Your task to perform on an android device: Go to Wikipedia Image 0: 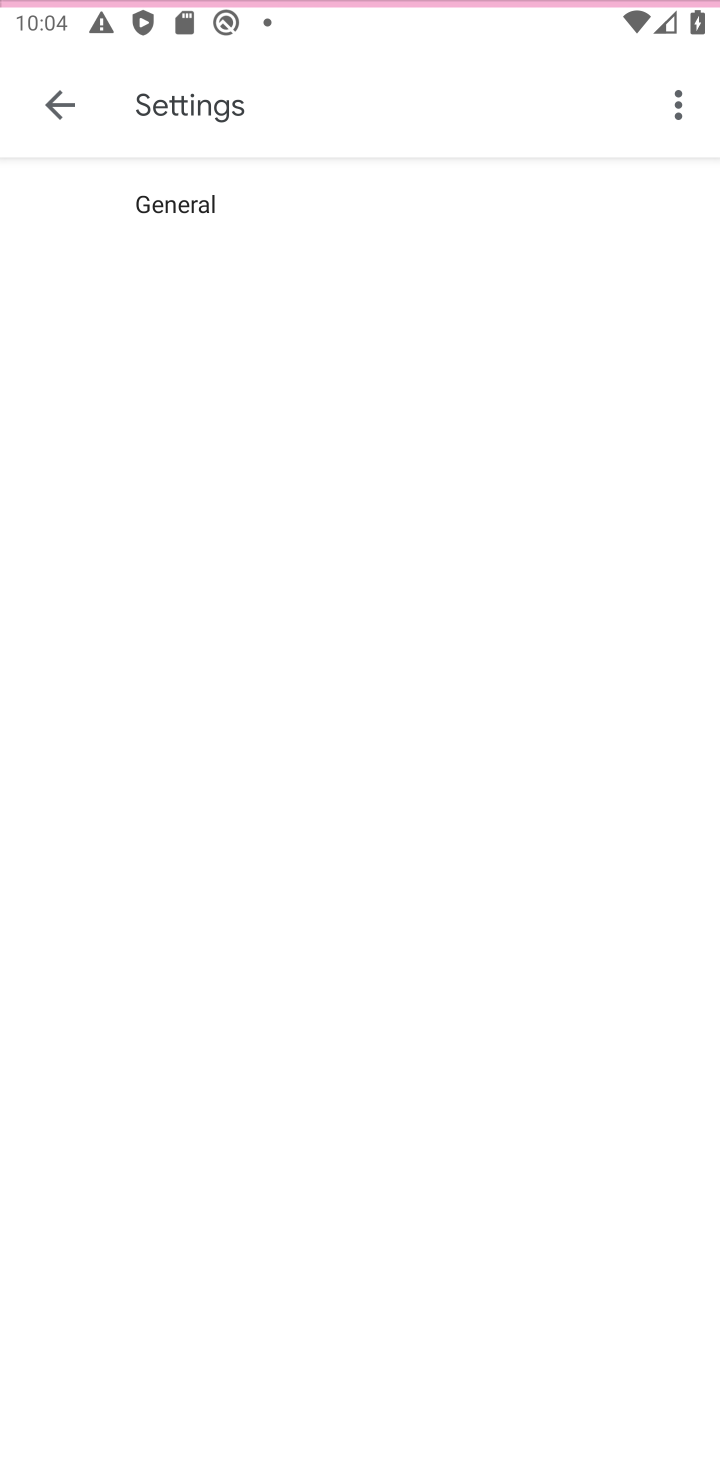
Step 0: press home button
Your task to perform on an android device: Go to Wikipedia Image 1: 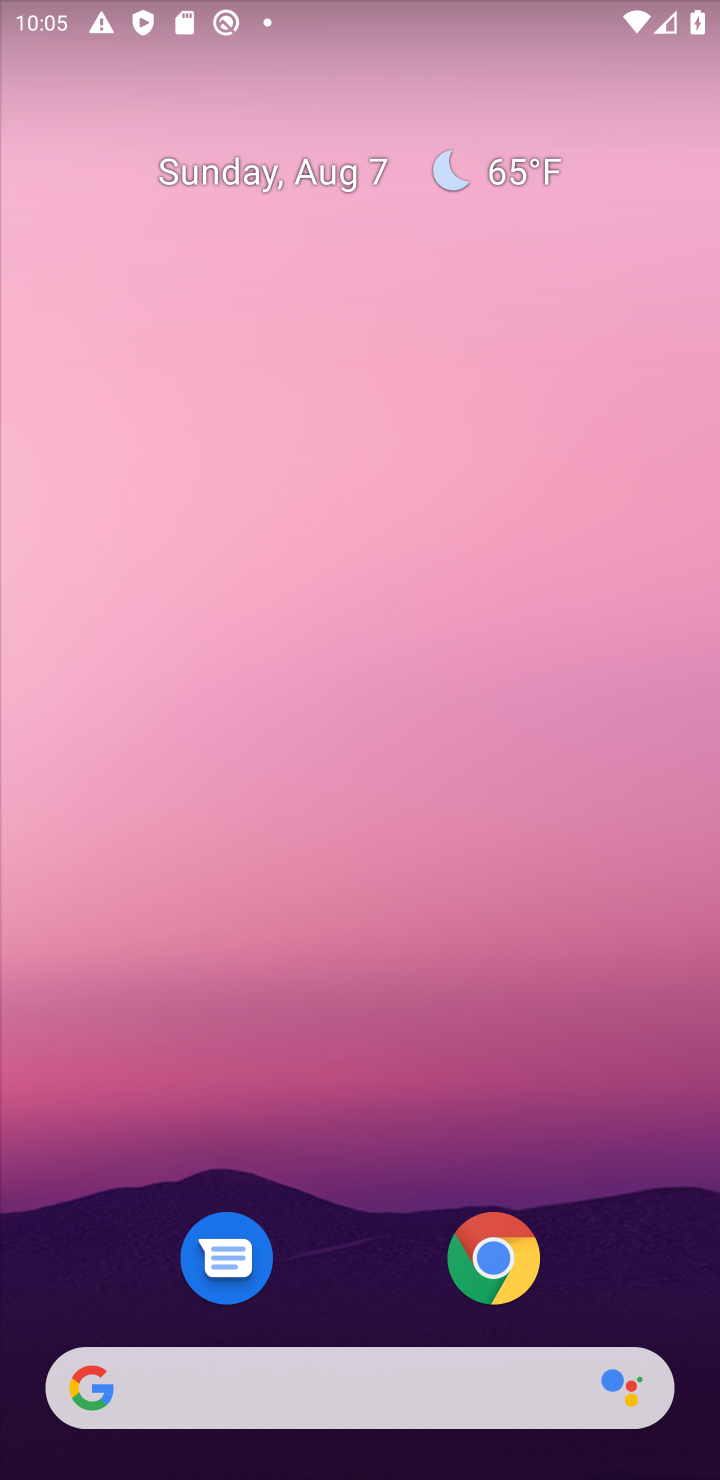
Step 1: drag from (302, 762) to (269, 68)
Your task to perform on an android device: Go to Wikipedia Image 2: 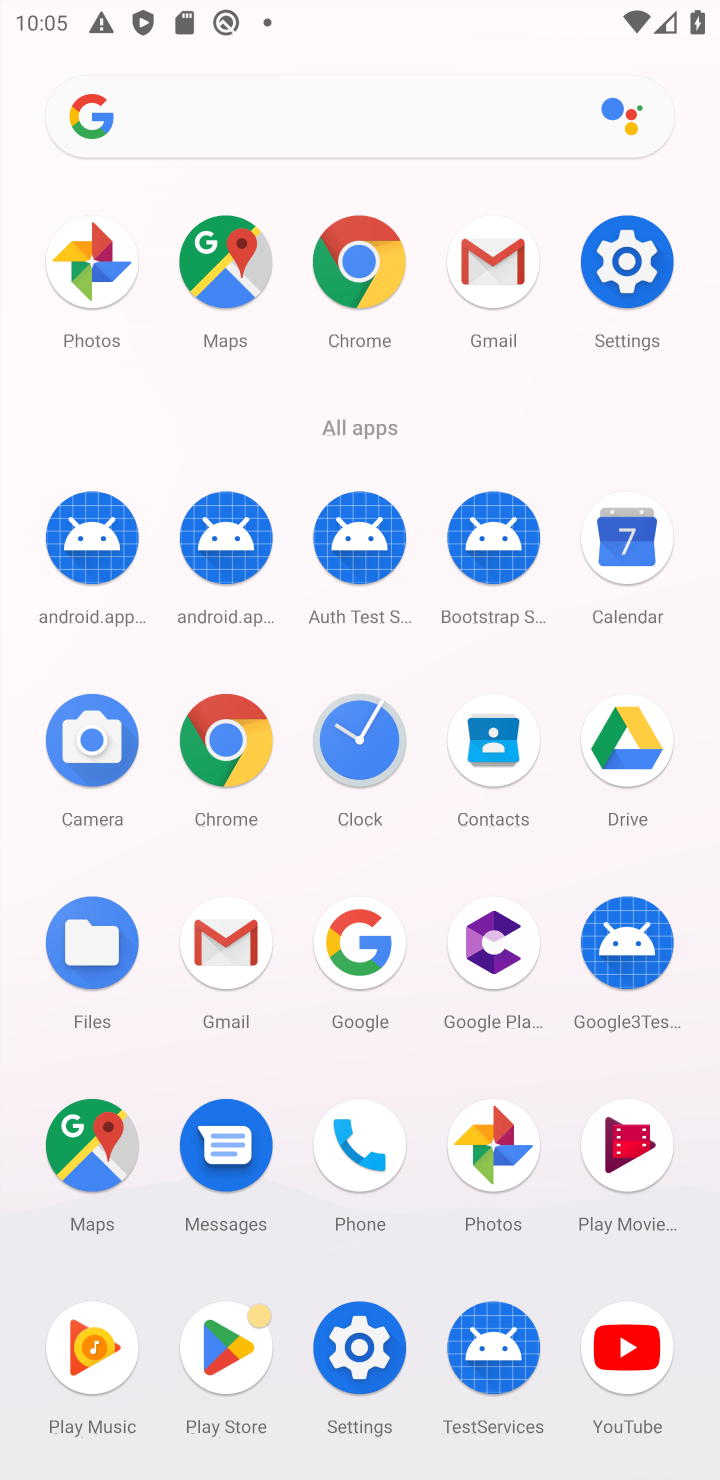
Step 2: click (348, 266)
Your task to perform on an android device: Go to Wikipedia Image 3: 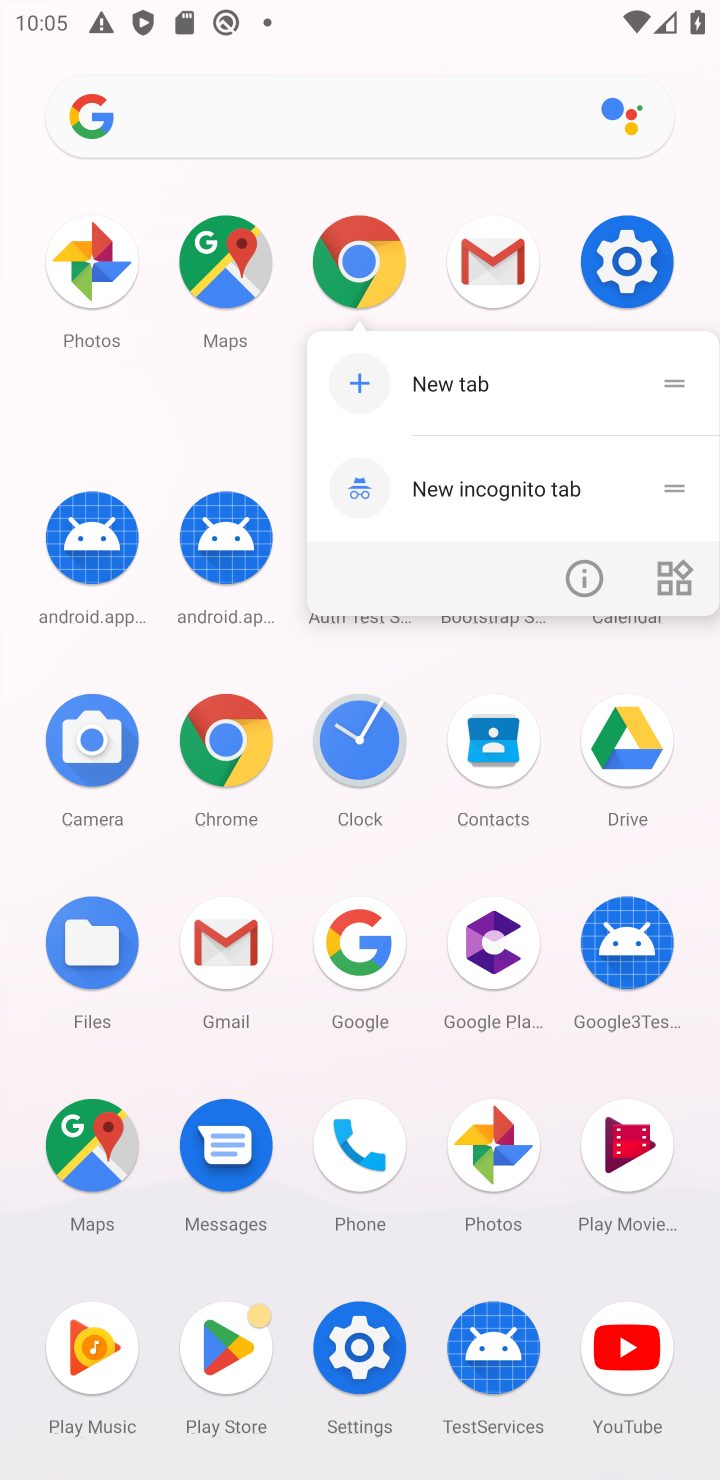
Step 3: click (602, 775)
Your task to perform on an android device: Go to Wikipedia Image 4: 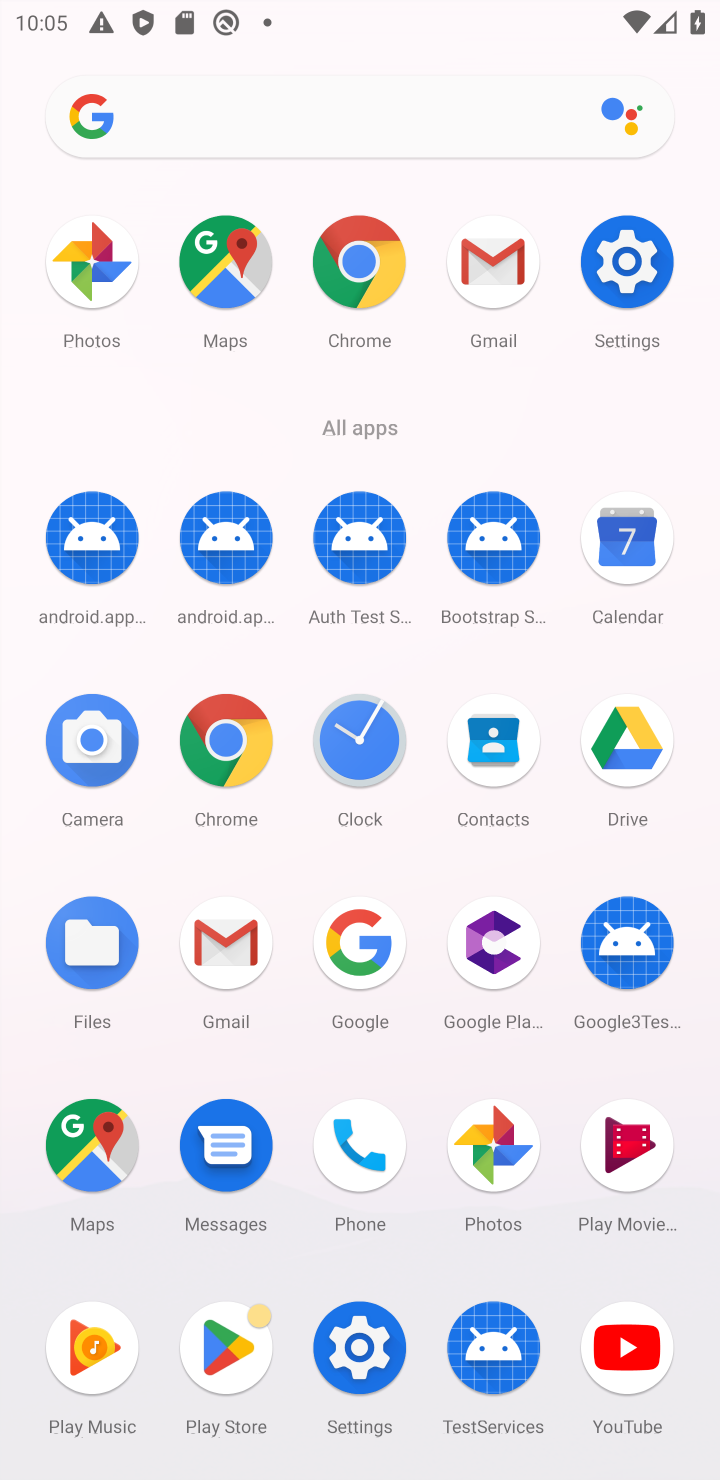
Step 4: click (345, 262)
Your task to perform on an android device: Go to Wikipedia Image 5: 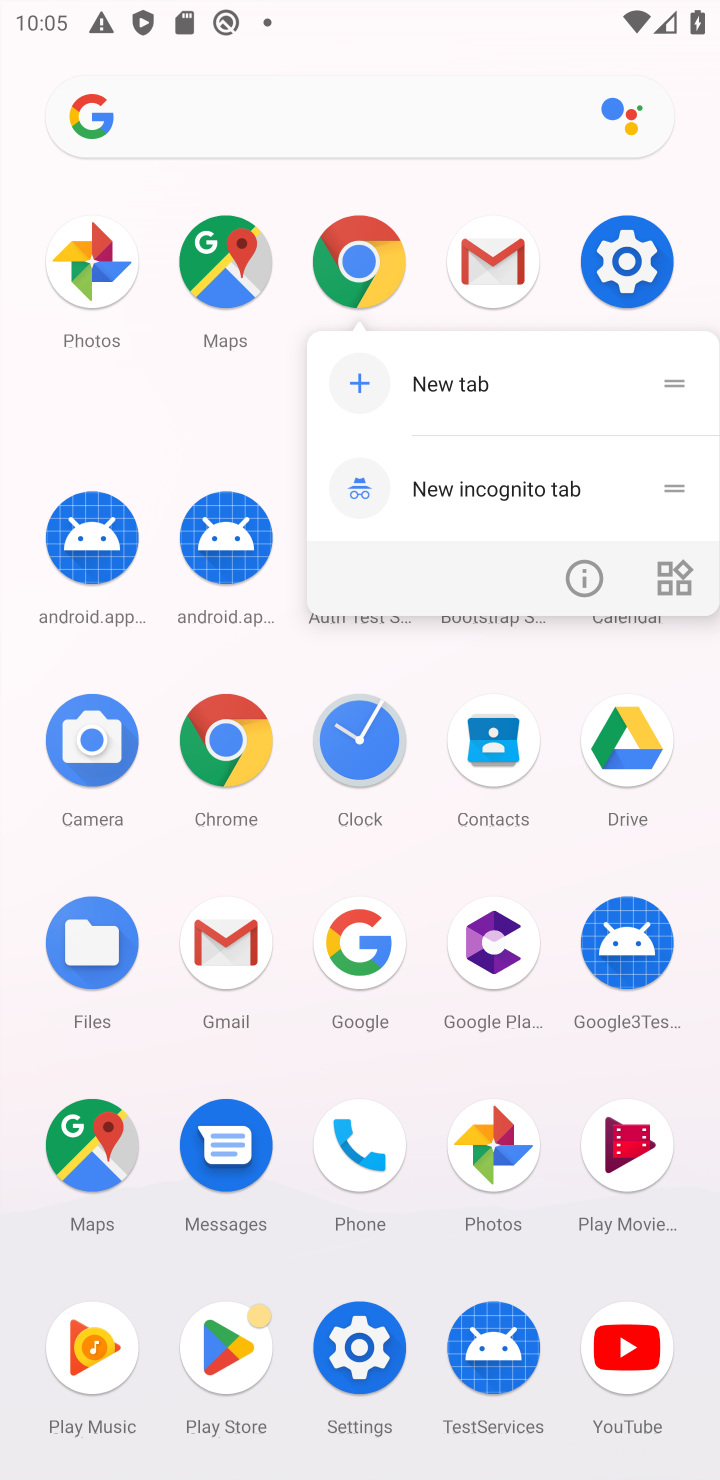
Step 5: click (365, 262)
Your task to perform on an android device: Go to Wikipedia Image 6: 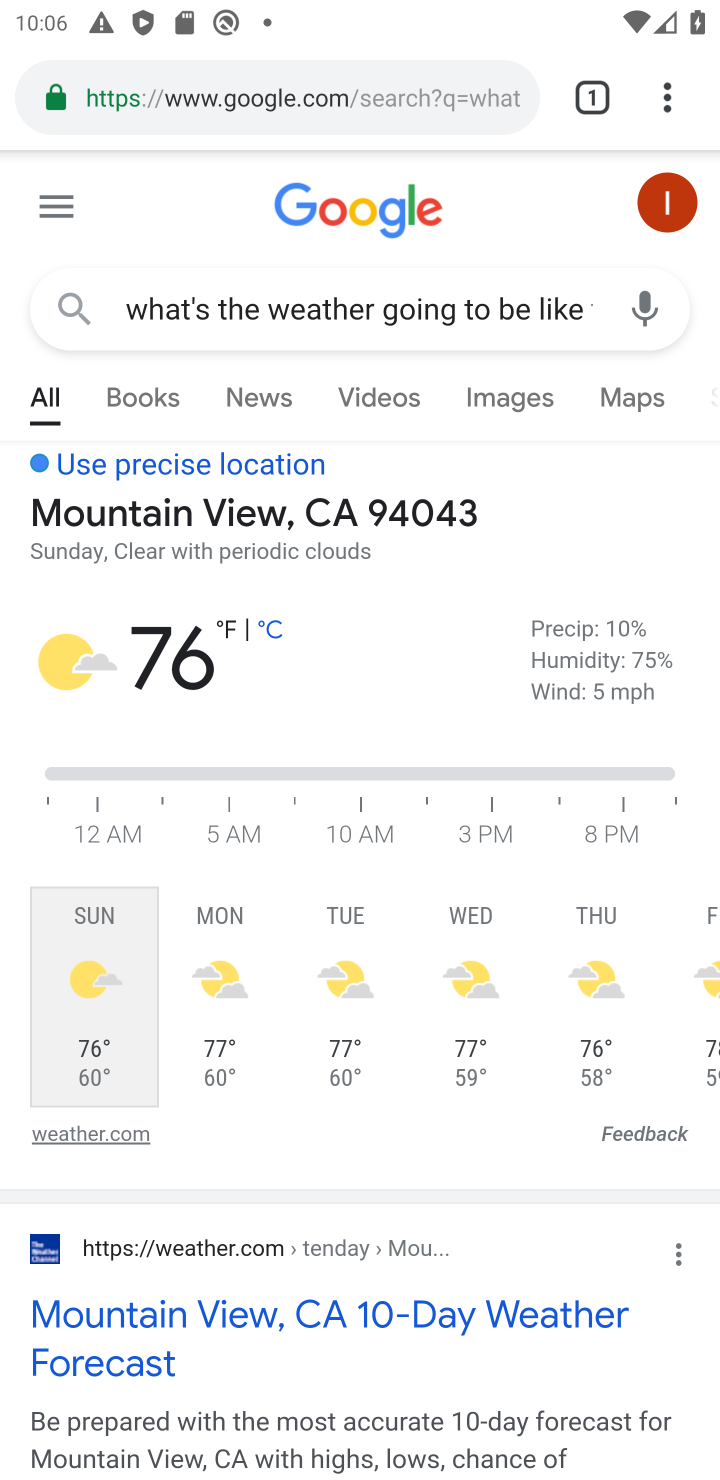
Step 6: click (327, 90)
Your task to perform on an android device: Go to Wikipedia Image 7: 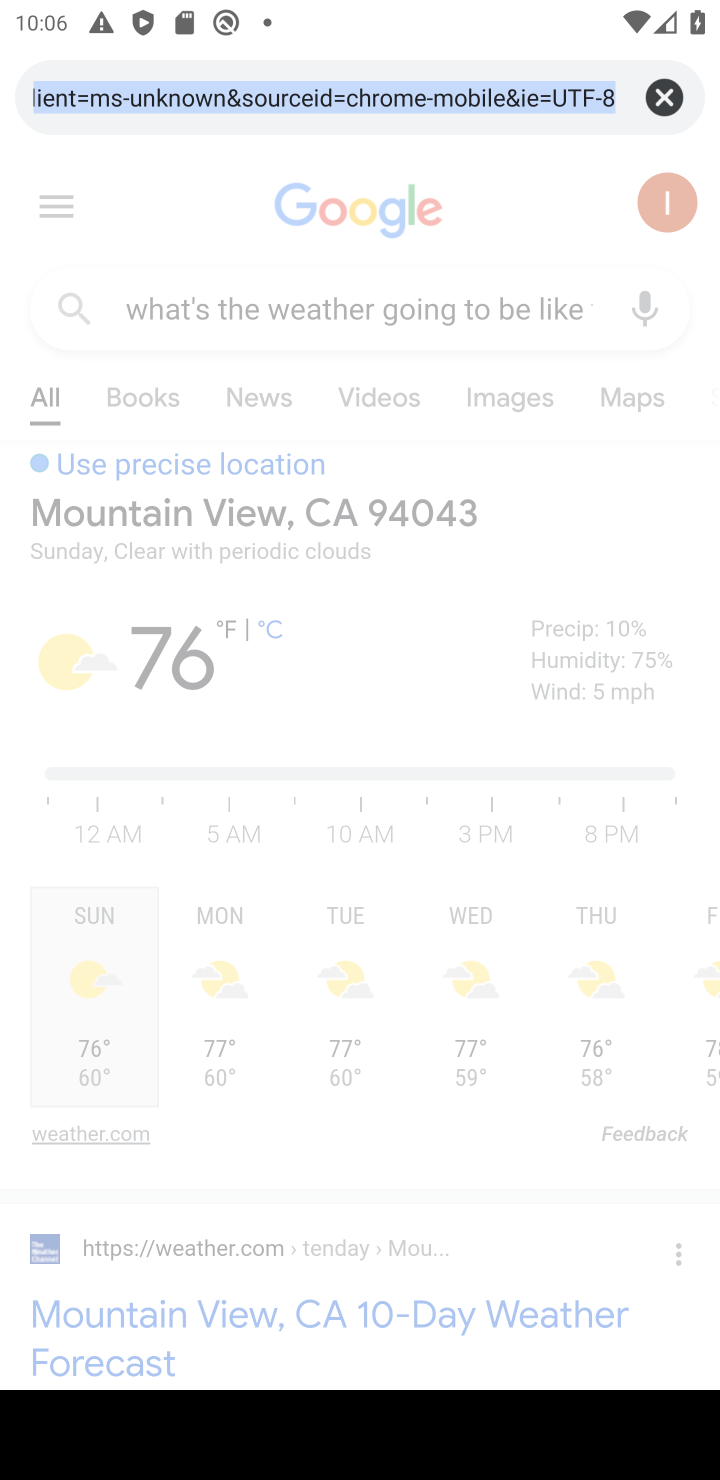
Step 7: type " Wikipedia"
Your task to perform on an android device: Go to Wikipedia Image 8: 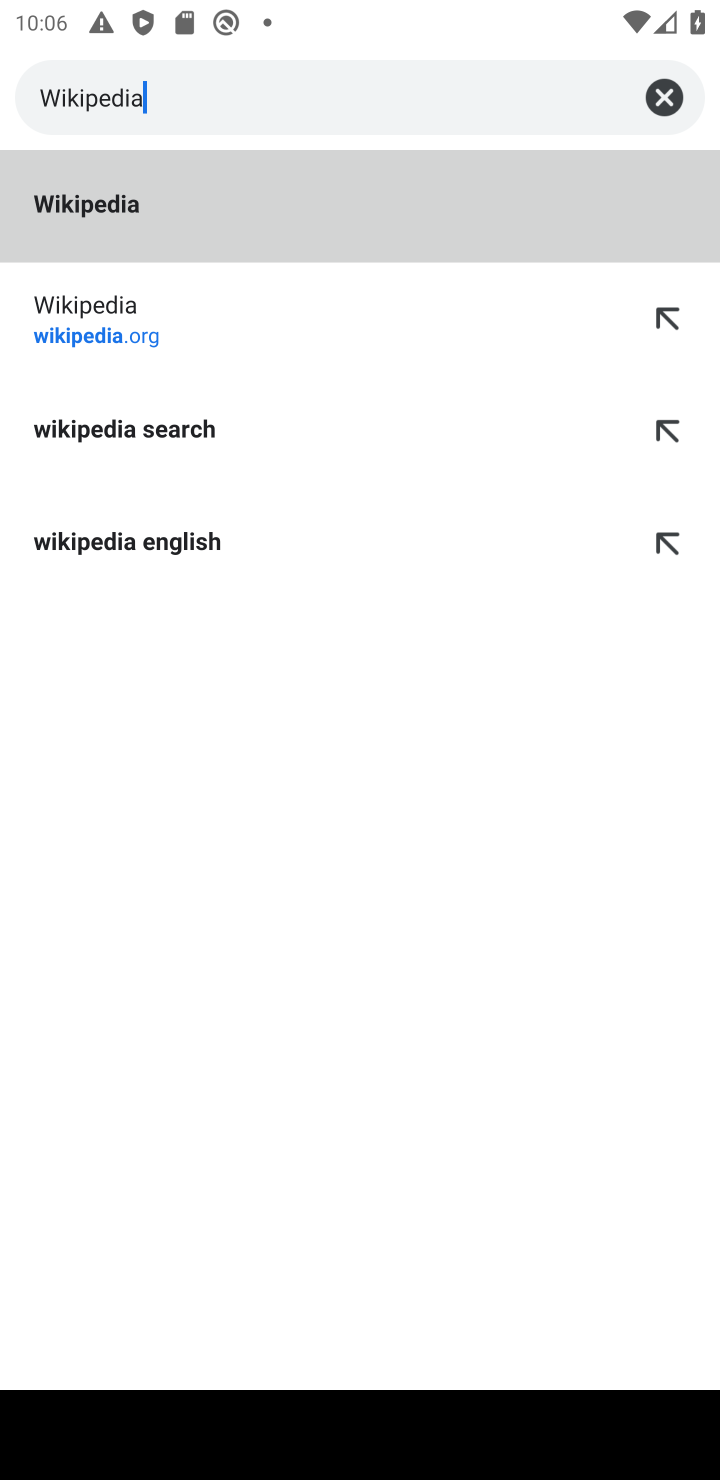
Step 8: type ""
Your task to perform on an android device: Go to Wikipedia Image 9: 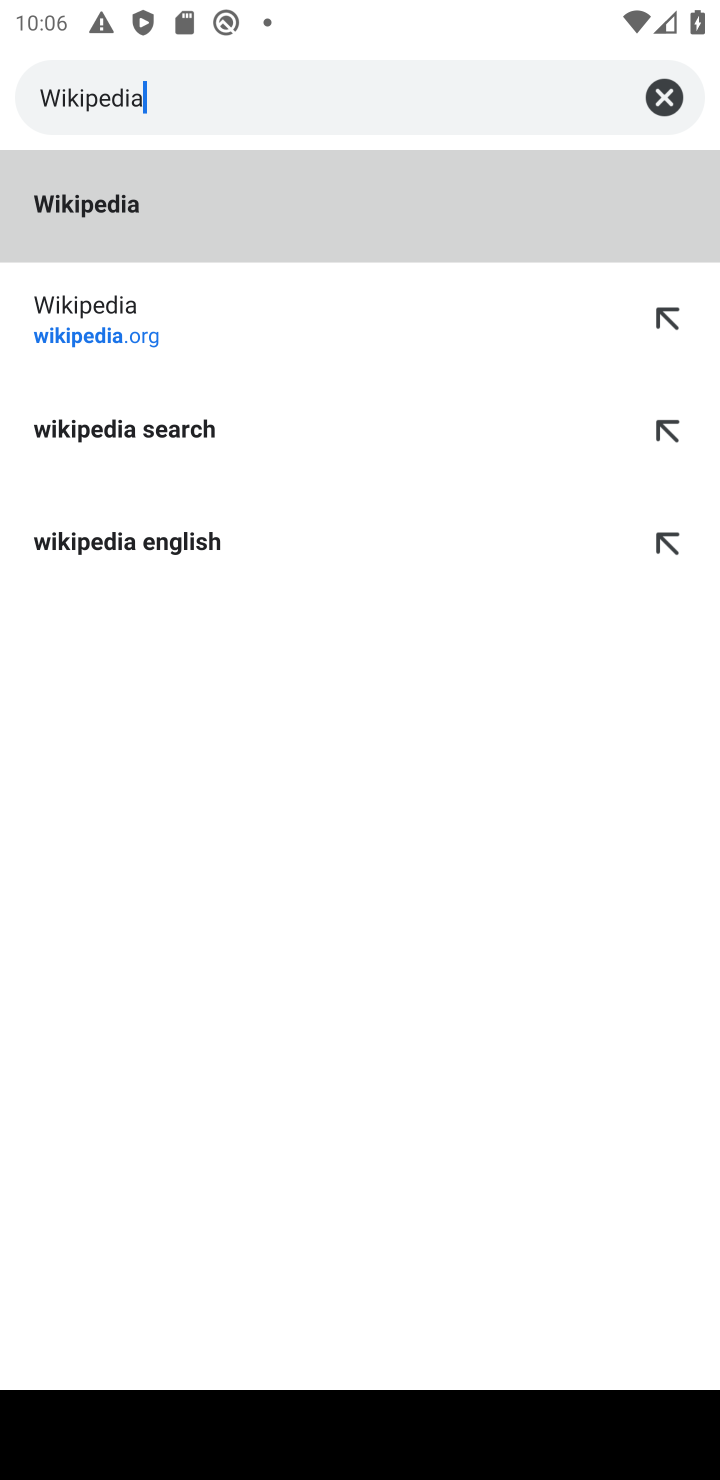
Step 9: click (111, 317)
Your task to perform on an android device: Go to Wikipedia Image 10: 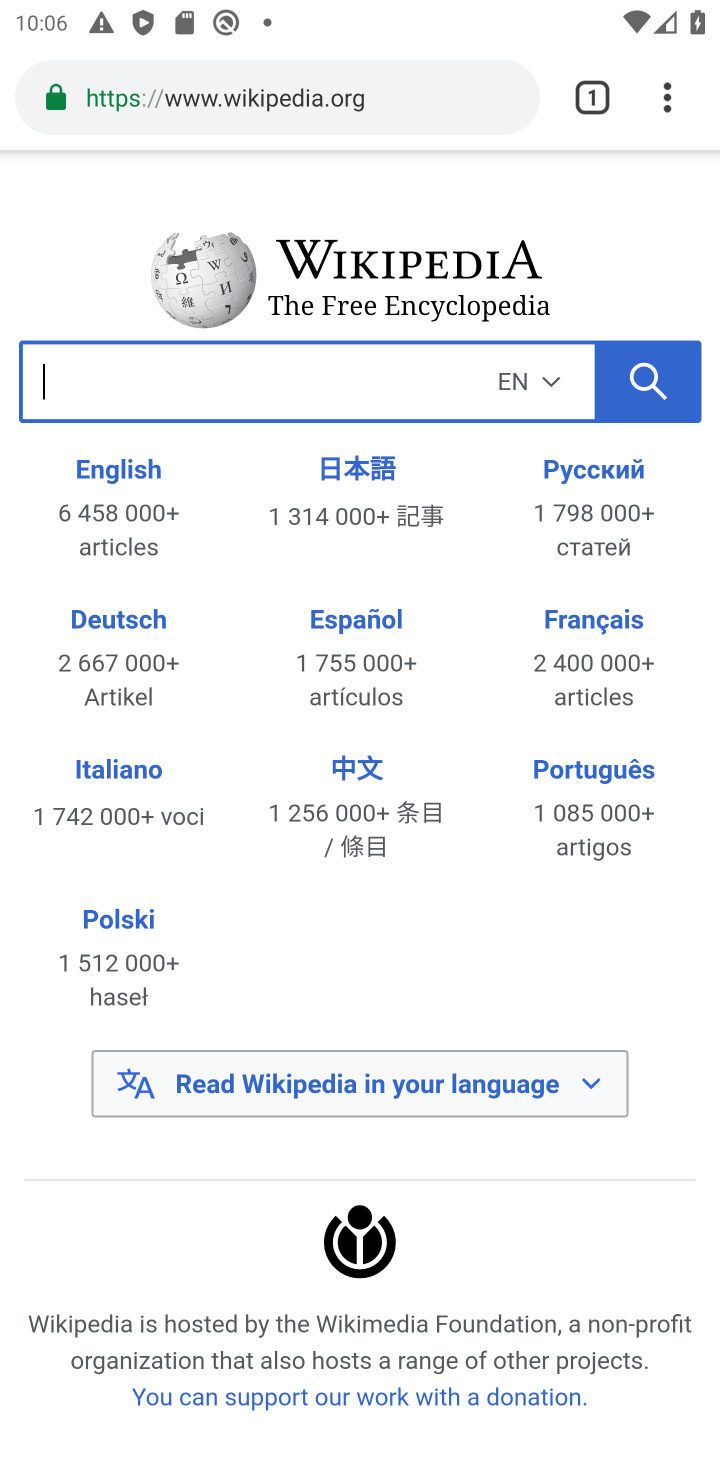
Step 10: click (26, 233)
Your task to perform on an android device: Go to Wikipedia Image 11: 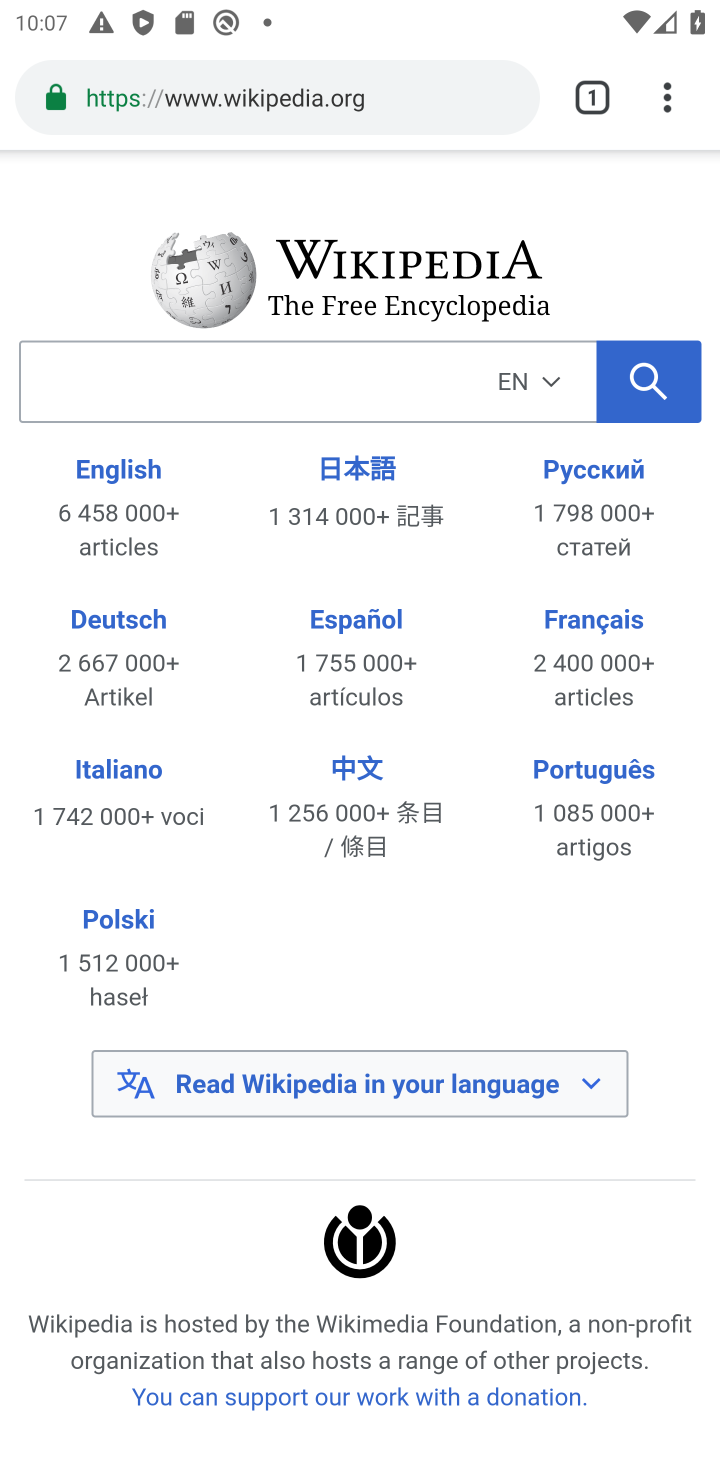
Step 11: task complete